Your task to perform on an android device: turn on the 12-hour format for clock Image 0: 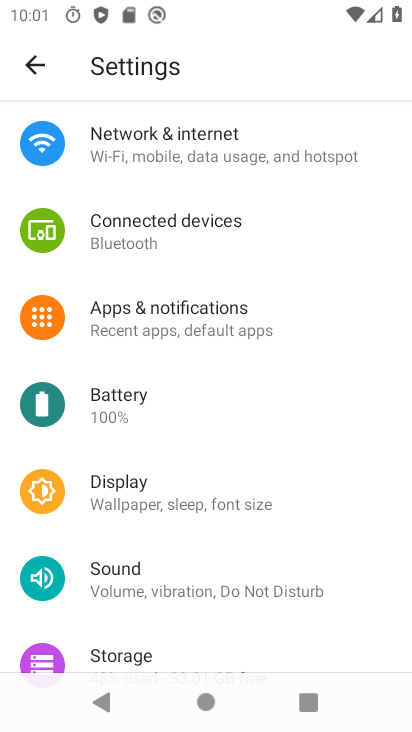
Step 0: press home button
Your task to perform on an android device: turn on the 12-hour format for clock Image 1: 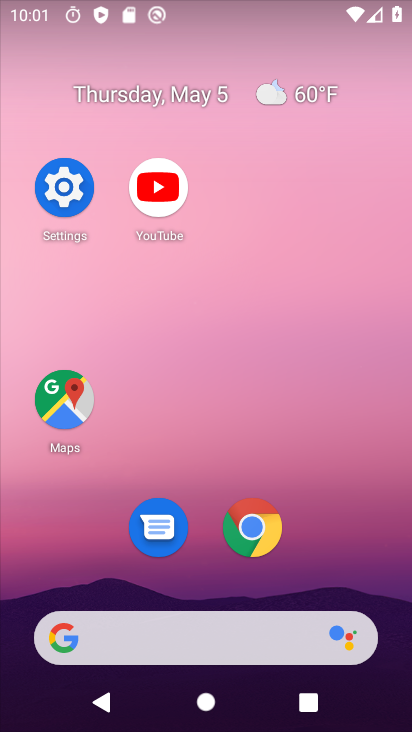
Step 1: drag from (268, 527) to (322, 90)
Your task to perform on an android device: turn on the 12-hour format for clock Image 2: 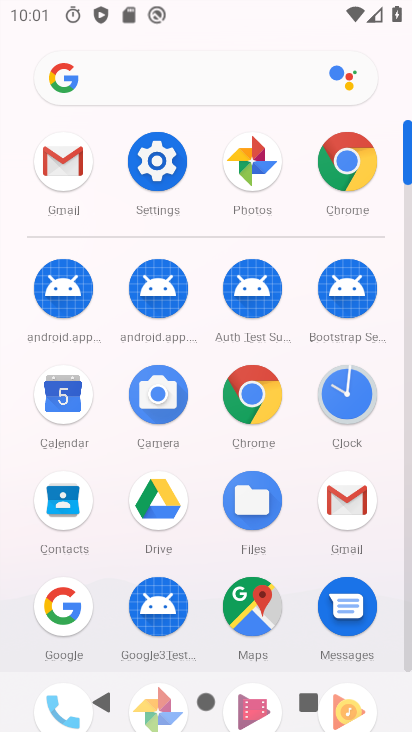
Step 2: drag from (349, 398) to (218, 195)
Your task to perform on an android device: turn on the 12-hour format for clock Image 3: 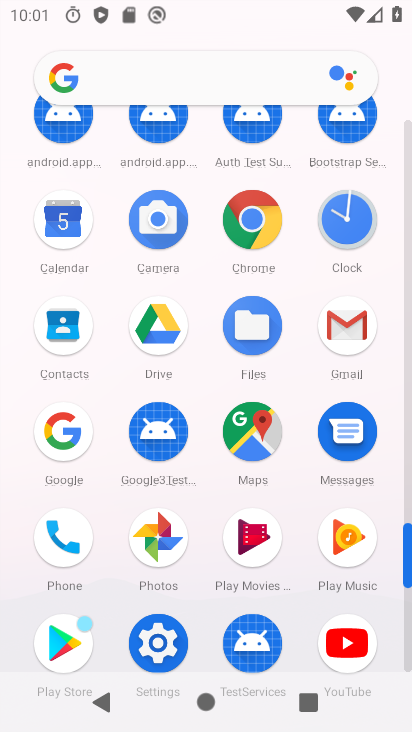
Step 3: drag from (333, 221) to (233, 198)
Your task to perform on an android device: turn on the 12-hour format for clock Image 4: 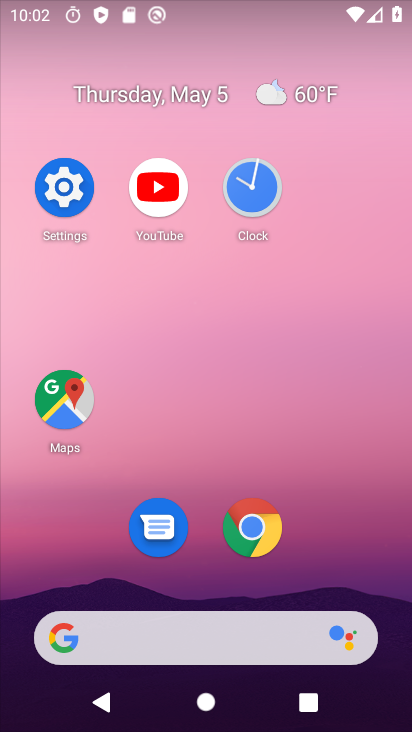
Step 4: click (254, 190)
Your task to perform on an android device: turn on the 12-hour format for clock Image 5: 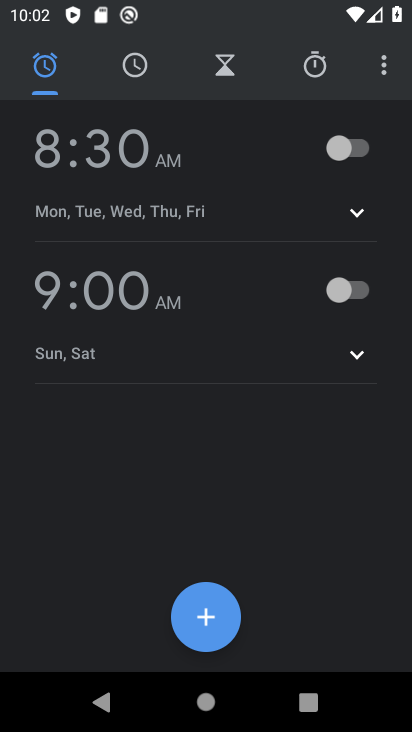
Step 5: click (377, 75)
Your task to perform on an android device: turn on the 12-hour format for clock Image 6: 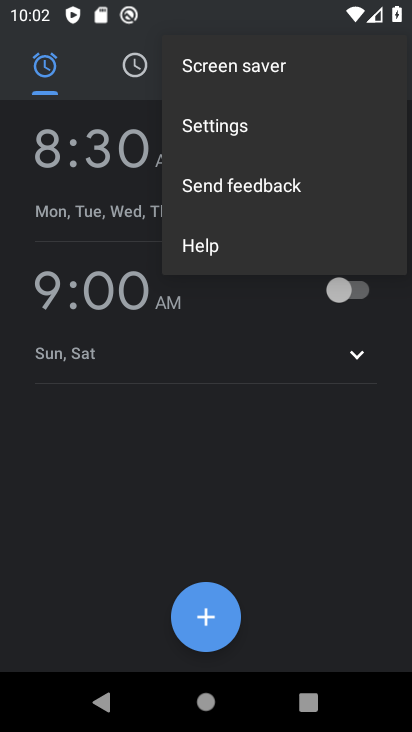
Step 6: click (247, 132)
Your task to perform on an android device: turn on the 12-hour format for clock Image 7: 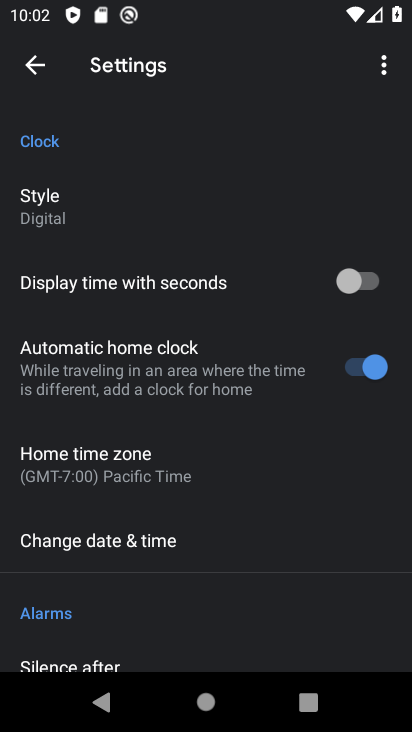
Step 7: drag from (236, 504) to (218, 231)
Your task to perform on an android device: turn on the 12-hour format for clock Image 8: 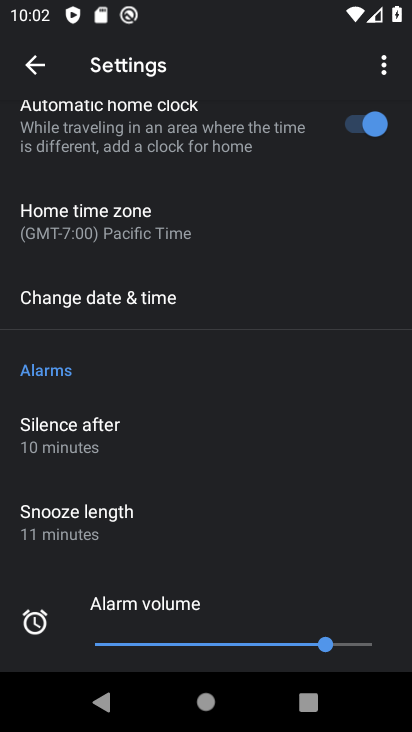
Step 8: click (139, 298)
Your task to perform on an android device: turn on the 12-hour format for clock Image 9: 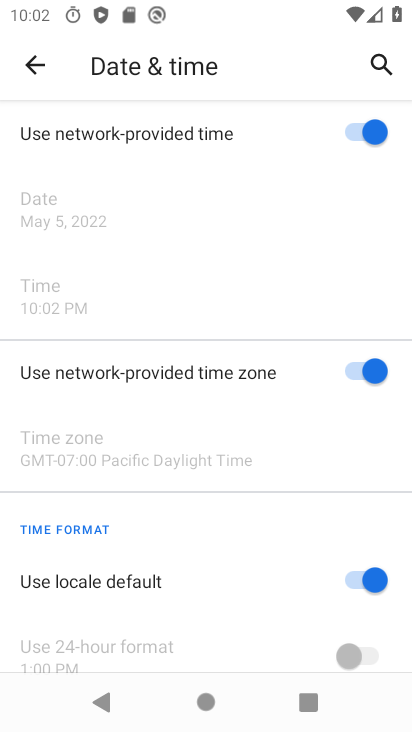
Step 9: task complete